Your task to perform on an android device: turn on priority inbox in the gmail app Image 0: 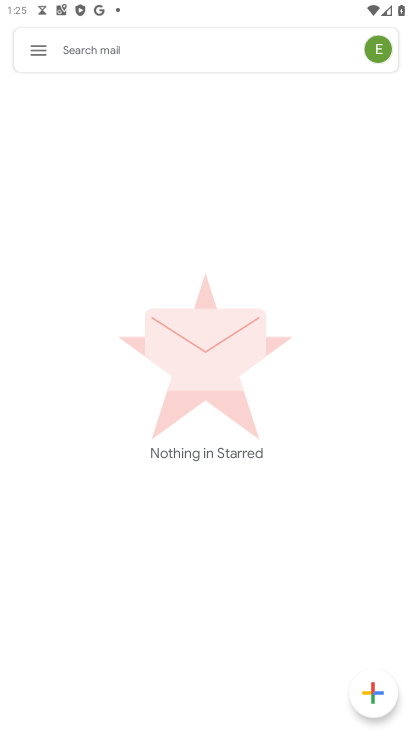
Step 0: press home button
Your task to perform on an android device: turn on priority inbox in the gmail app Image 1: 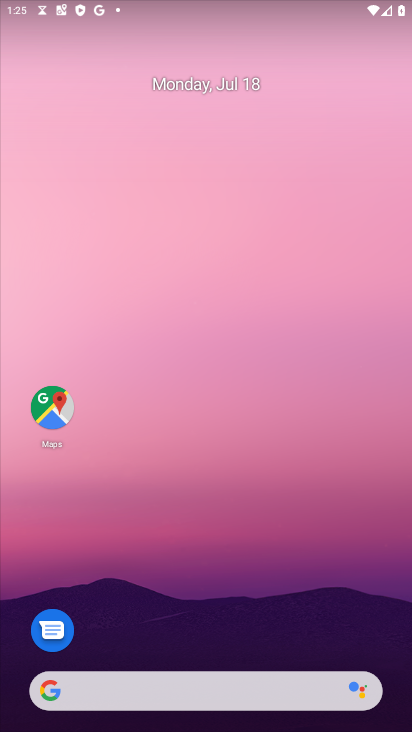
Step 1: drag from (283, 685) to (294, 46)
Your task to perform on an android device: turn on priority inbox in the gmail app Image 2: 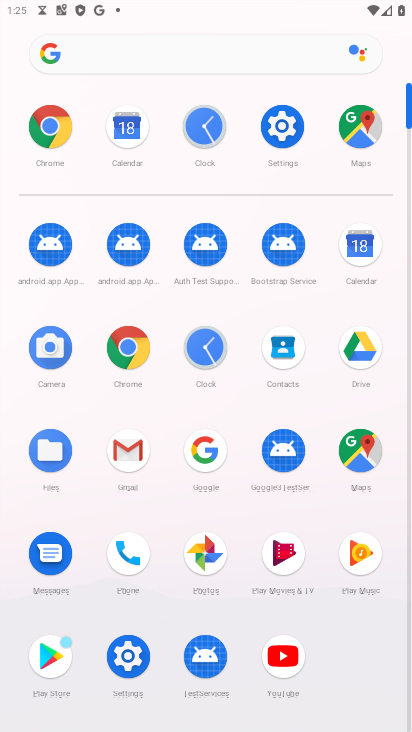
Step 2: click (116, 448)
Your task to perform on an android device: turn on priority inbox in the gmail app Image 3: 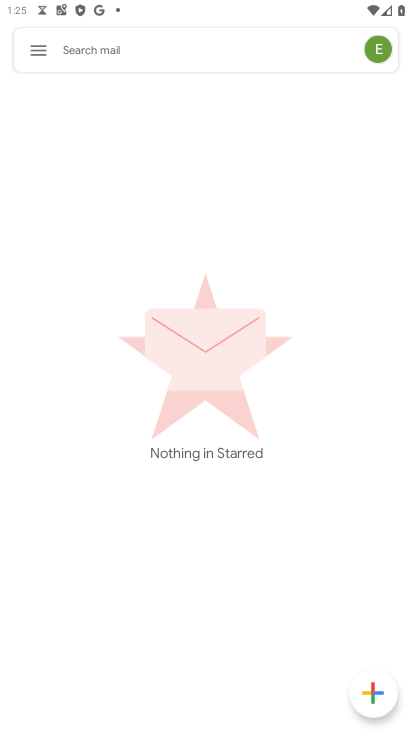
Step 3: click (39, 42)
Your task to perform on an android device: turn on priority inbox in the gmail app Image 4: 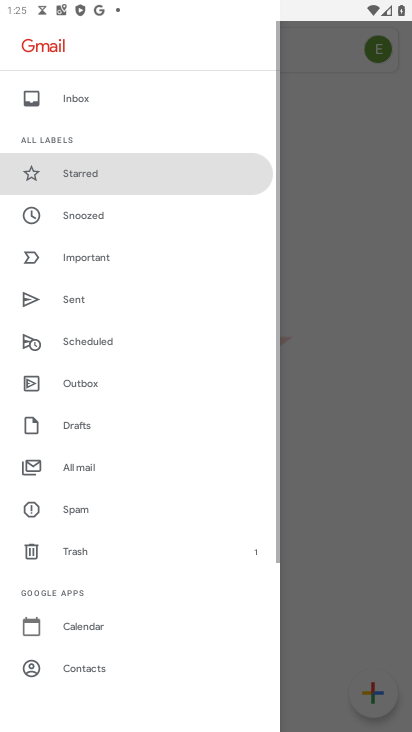
Step 4: drag from (108, 611) to (153, 125)
Your task to perform on an android device: turn on priority inbox in the gmail app Image 5: 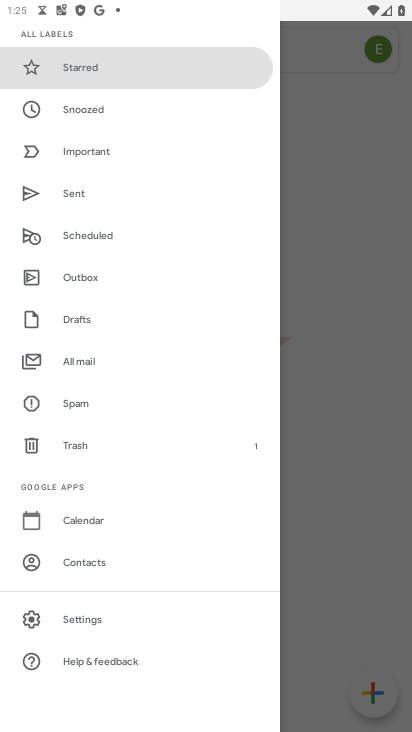
Step 5: click (107, 616)
Your task to perform on an android device: turn on priority inbox in the gmail app Image 6: 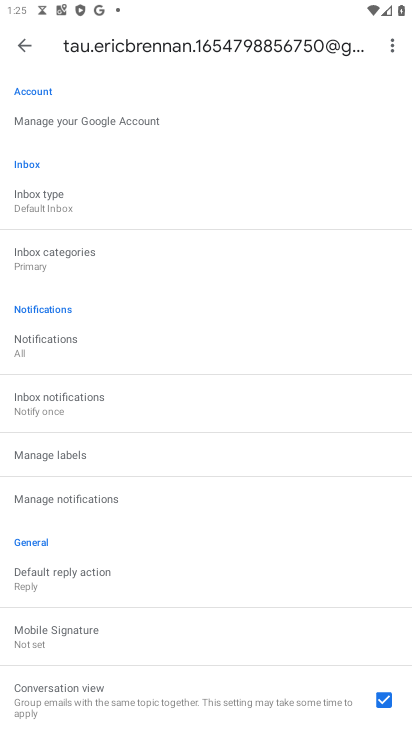
Step 6: click (56, 207)
Your task to perform on an android device: turn on priority inbox in the gmail app Image 7: 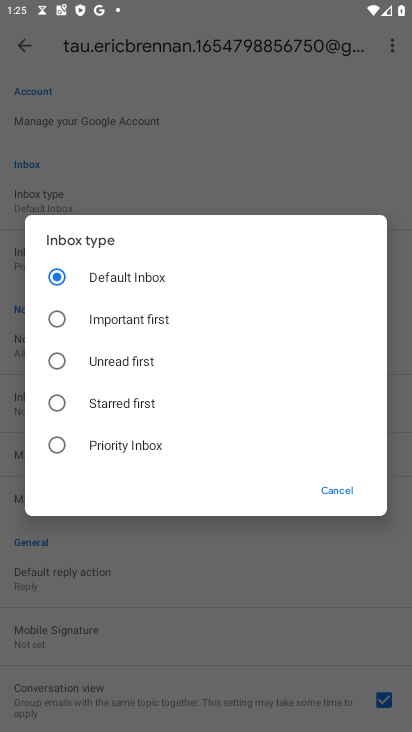
Step 7: click (91, 436)
Your task to perform on an android device: turn on priority inbox in the gmail app Image 8: 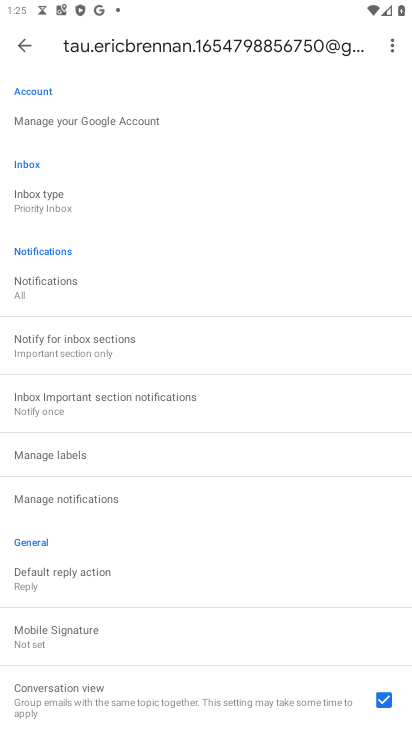
Step 8: task complete